Your task to perform on an android device: open app "DuckDuckGo Privacy Browser" (install if not already installed) Image 0: 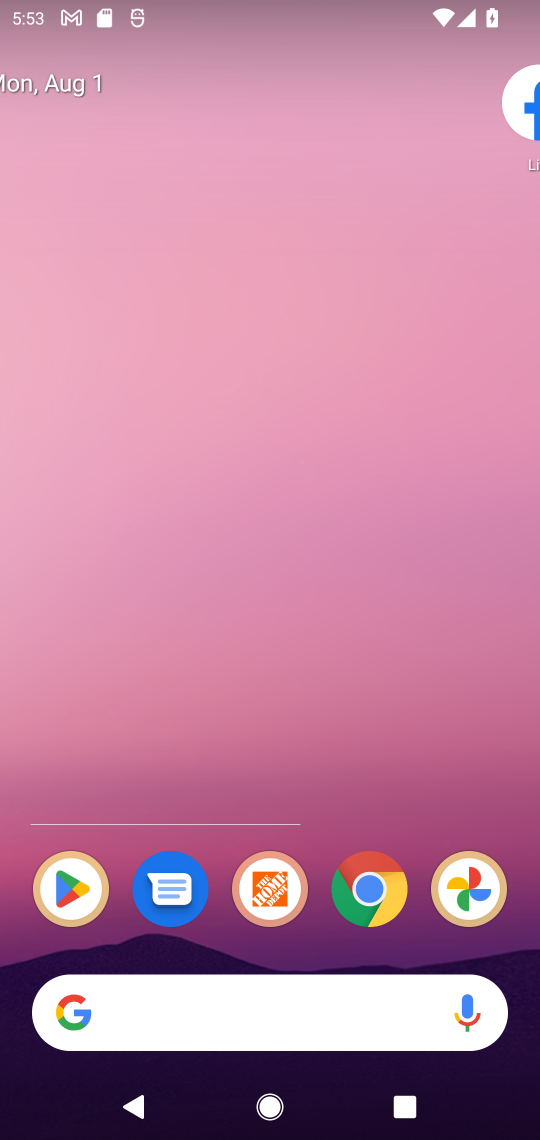
Step 0: press back button
Your task to perform on an android device: open app "DuckDuckGo Privacy Browser" (install if not already installed) Image 1: 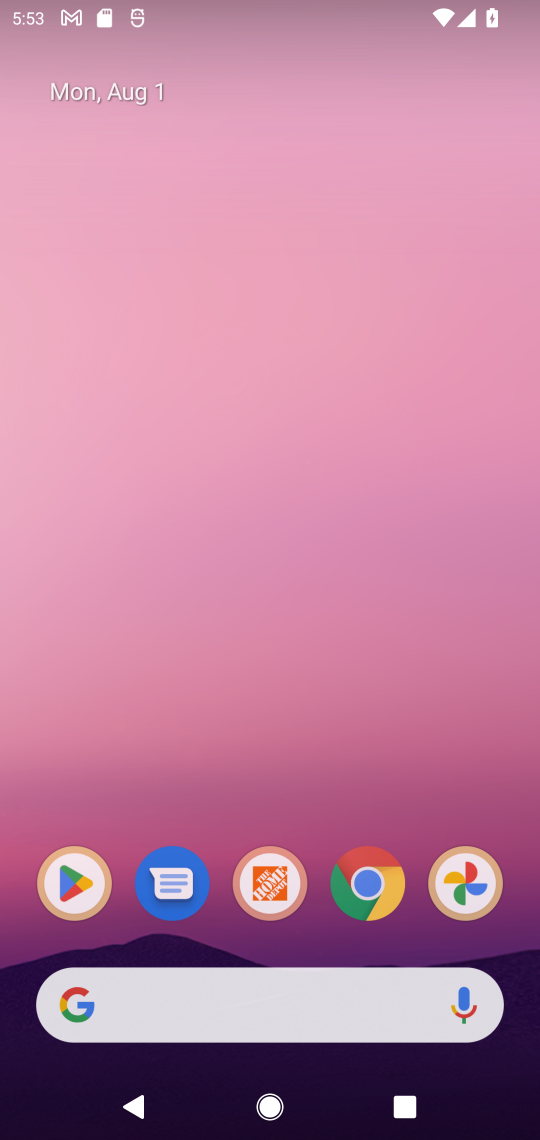
Step 1: drag from (329, 1041) to (174, 193)
Your task to perform on an android device: open app "DuckDuckGo Privacy Browser" (install if not already installed) Image 2: 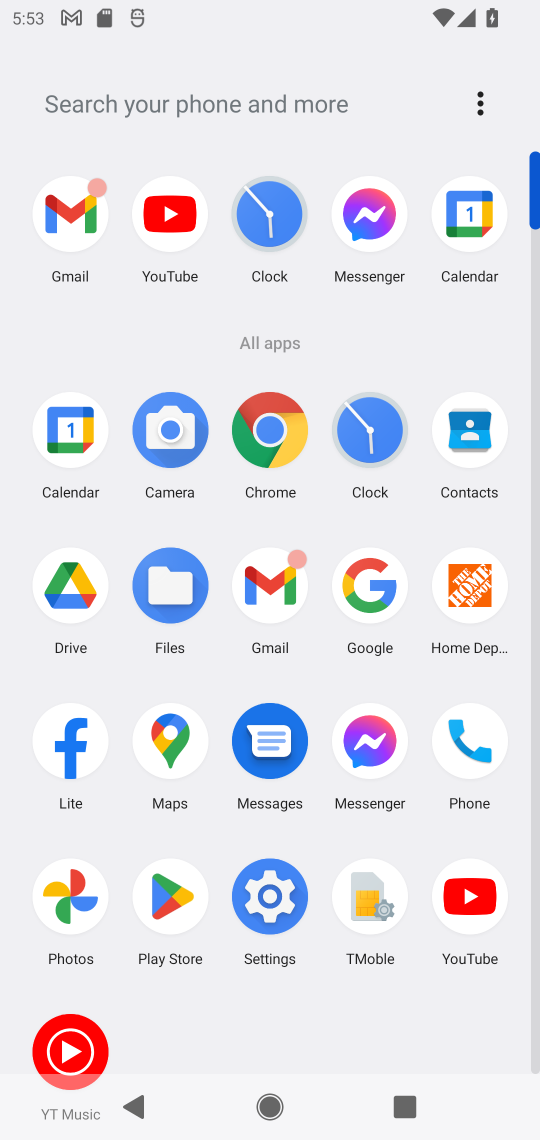
Step 2: press back button
Your task to perform on an android device: open app "DuckDuckGo Privacy Browser" (install if not already installed) Image 3: 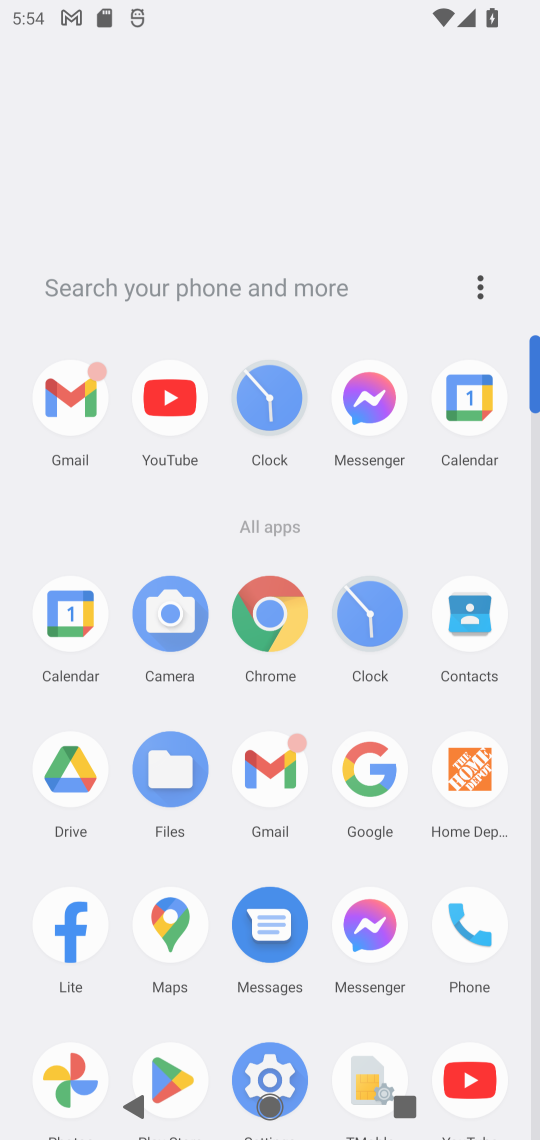
Step 3: press back button
Your task to perform on an android device: open app "DuckDuckGo Privacy Browser" (install if not already installed) Image 4: 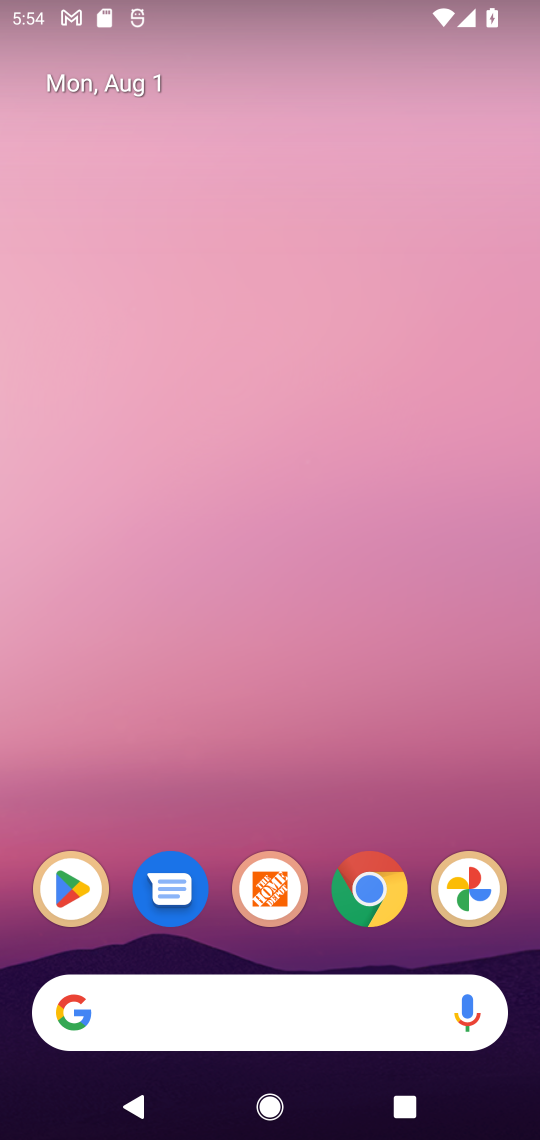
Step 4: drag from (310, 825) to (194, 67)
Your task to perform on an android device: open app "DuckDuckGo Privacy Browser" (install if not already installed) Image 5: 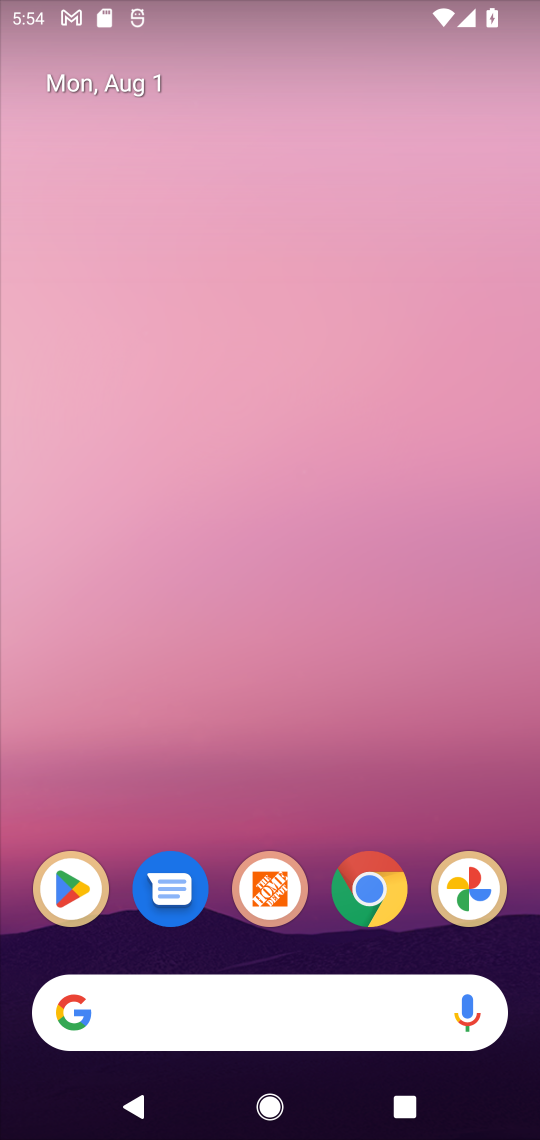
Step 5: drag from (299, 667) to (222, 1)
Your task to perform on an android device: open app "DuckDuckGo Privacy Browser" (install if not already installed) Image 6: 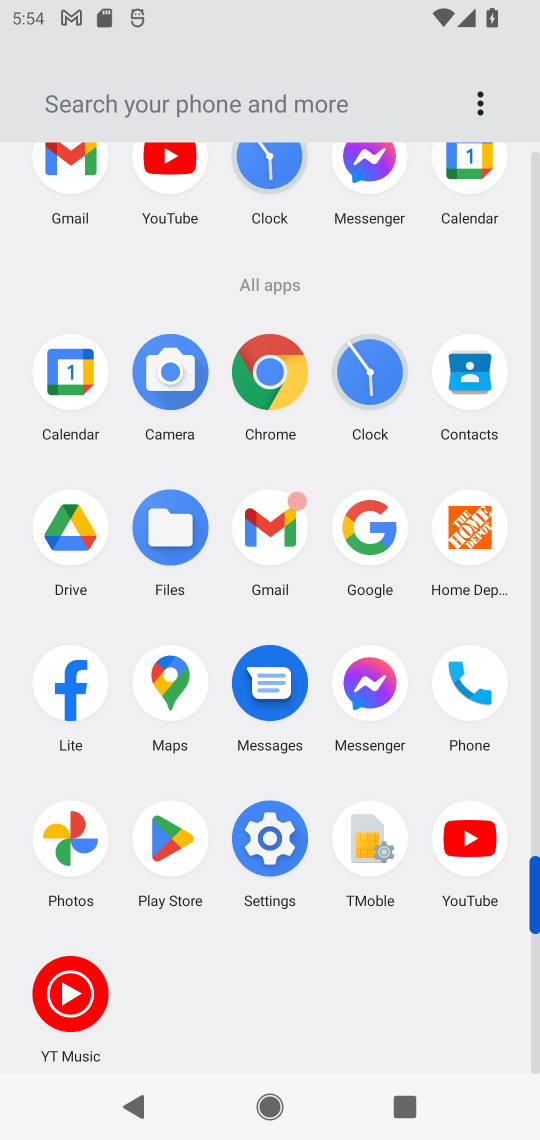
Step 6: click (164, 866)
Your task to perform on an android device: open app "DuckDuckGo Privacy Browser" (install if not already installed) Image 7: 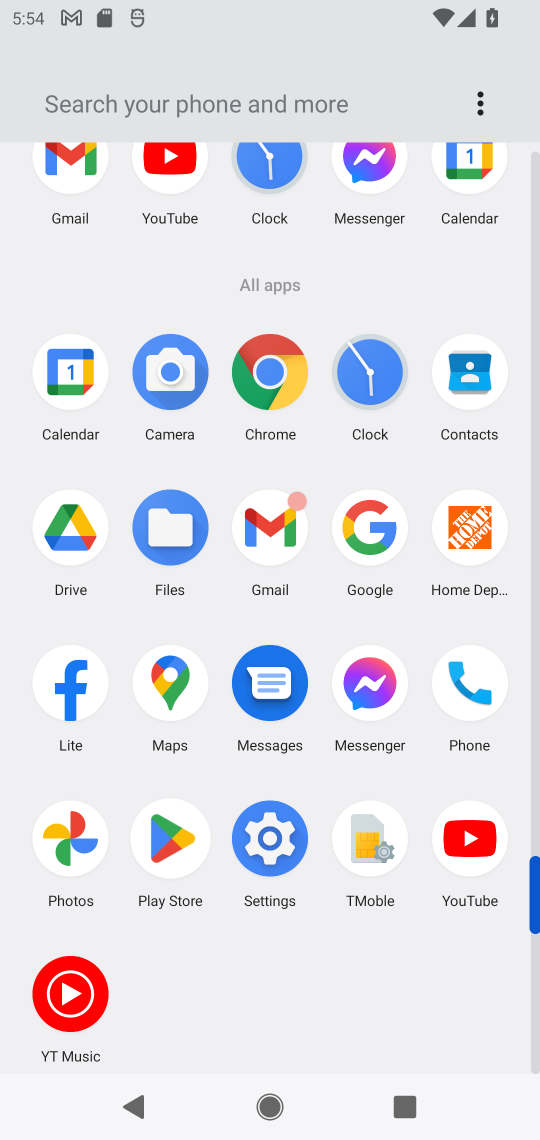
Step 7: click (168, 861)
Your task to perform on an android device: open app "DuckDuckGo Privacy Browser" (install if not already installed) Image 8: 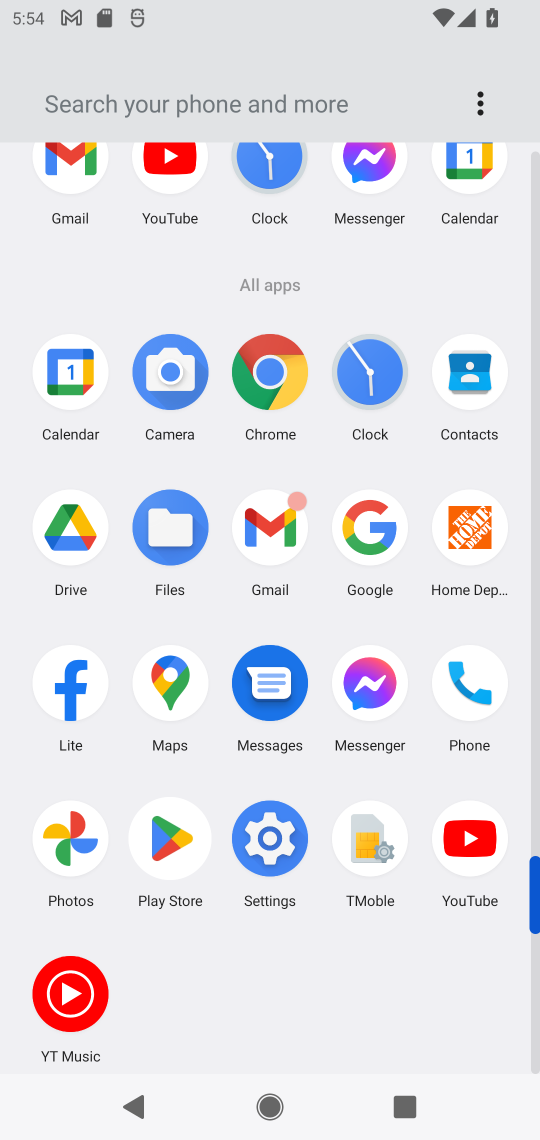
Step 8: click (168, 861)
Your task to perform on an android device: open app "DuckDuckGo Privacy Browser" (install if not already installed) Image 9: 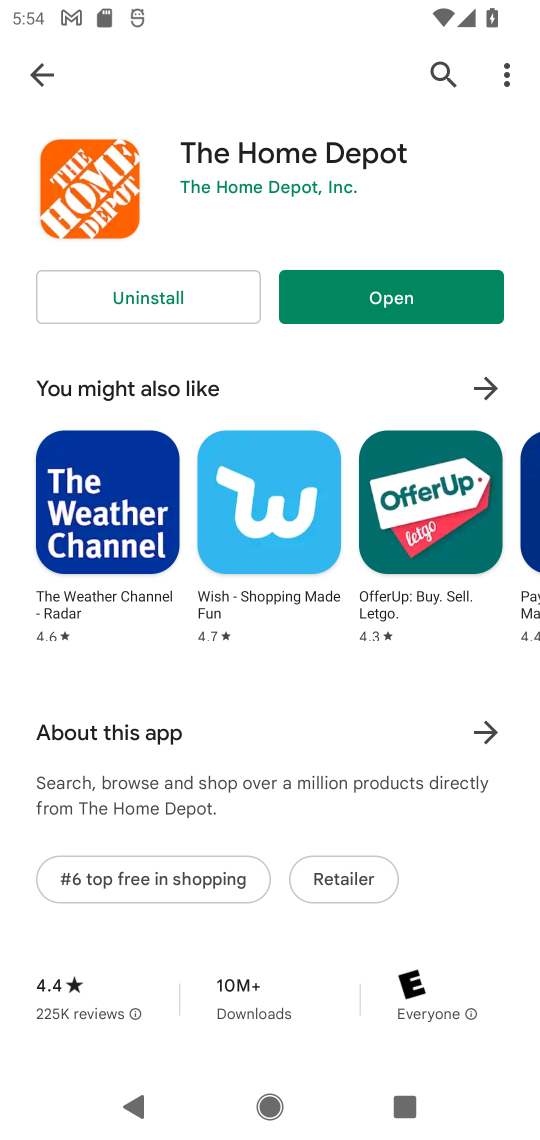
Step 9: click (182, 871)
Your task to perform on an android device: open app "DuckDuckGo Privacy Browser" (install if not already installed) Image 10: 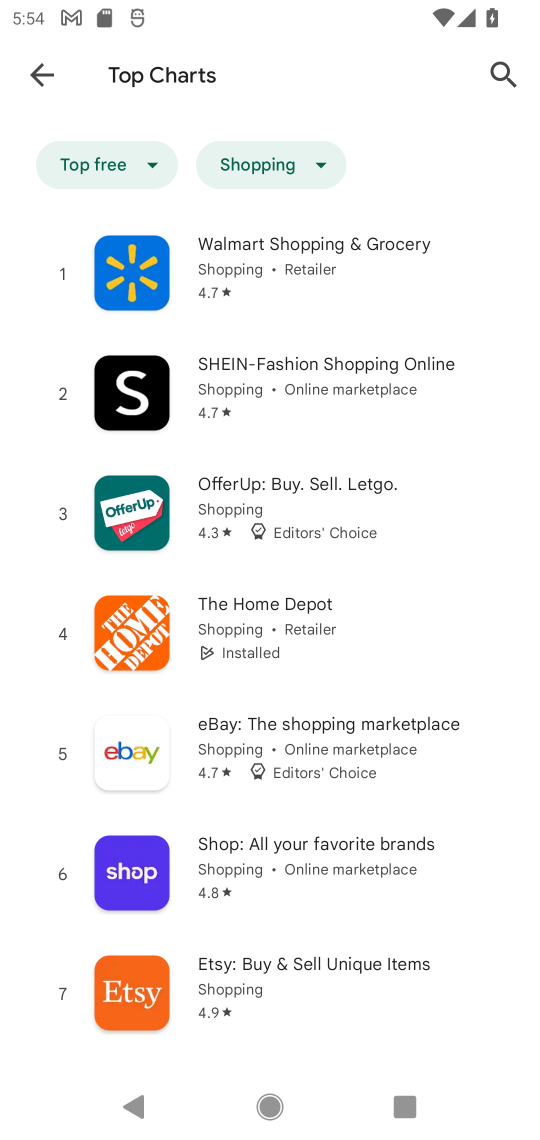
Step 10: click (39, 74)
Your task to perform on an android device: open app "DuckDuckGo Privacy Browser" (install if not already installed) Image 11: 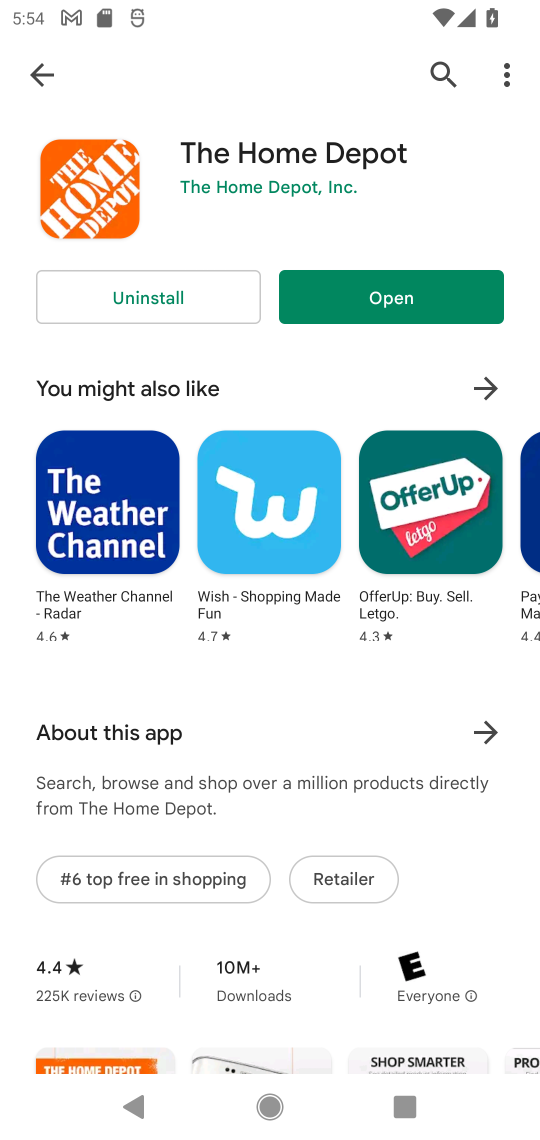
Step 11: click (31, 71)
Your task to perform on an android device: open app "DuckDuckGo Privacy Browser" (install if not already installed) Image 12: 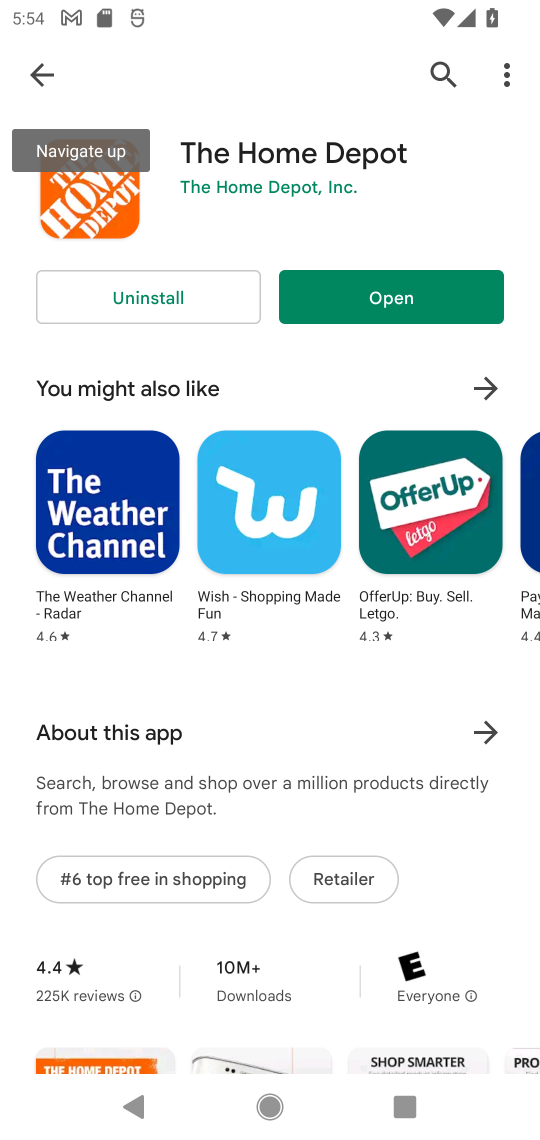
Step 12: click (43, 73)
Your task to perform on an android device: open app "DuckDuckGo Privacy Browser" (install if not already installed) Image 13: 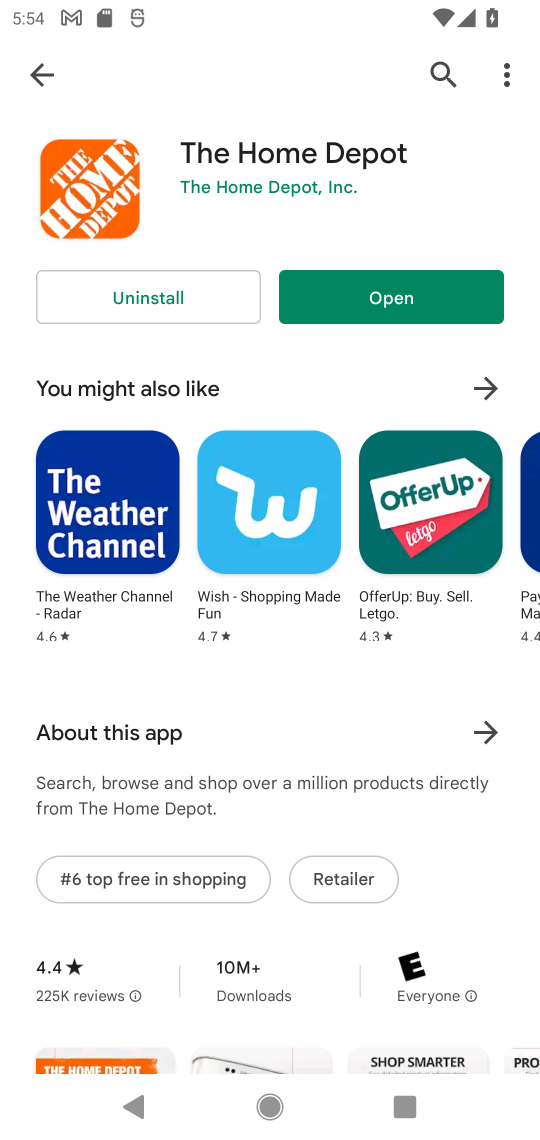
Step 13: click (43, 73)
Your task to perform on an android device: open app "DuckDuckGo Privacy Browser" (install if not already installed) Image 14: 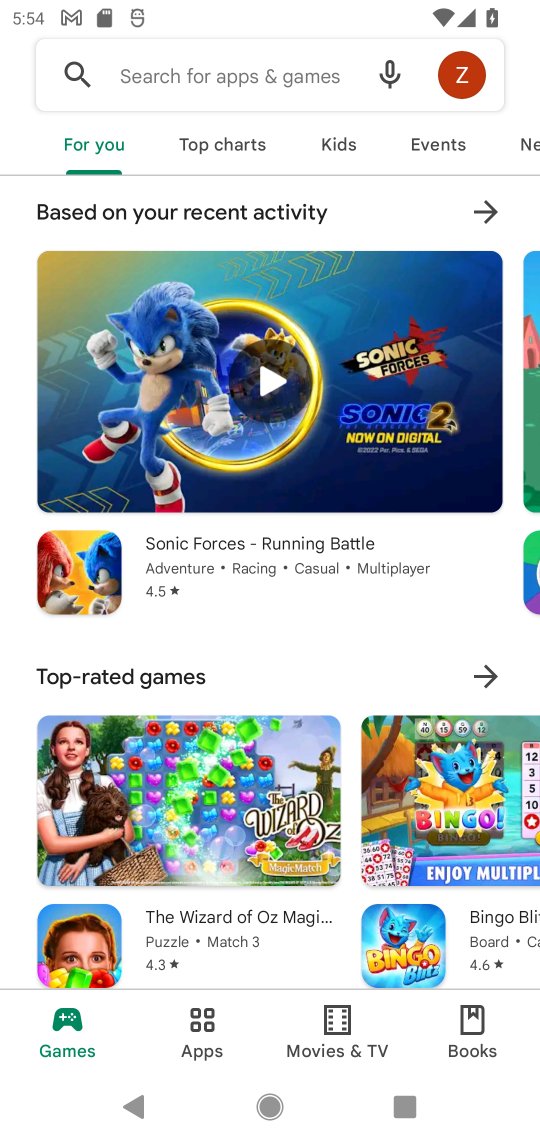
Step 14: click (154, 75)
Your task to perform on an android device: open app "DuckDuckGo Privacy Browser" (install if not already installed) Image 15: 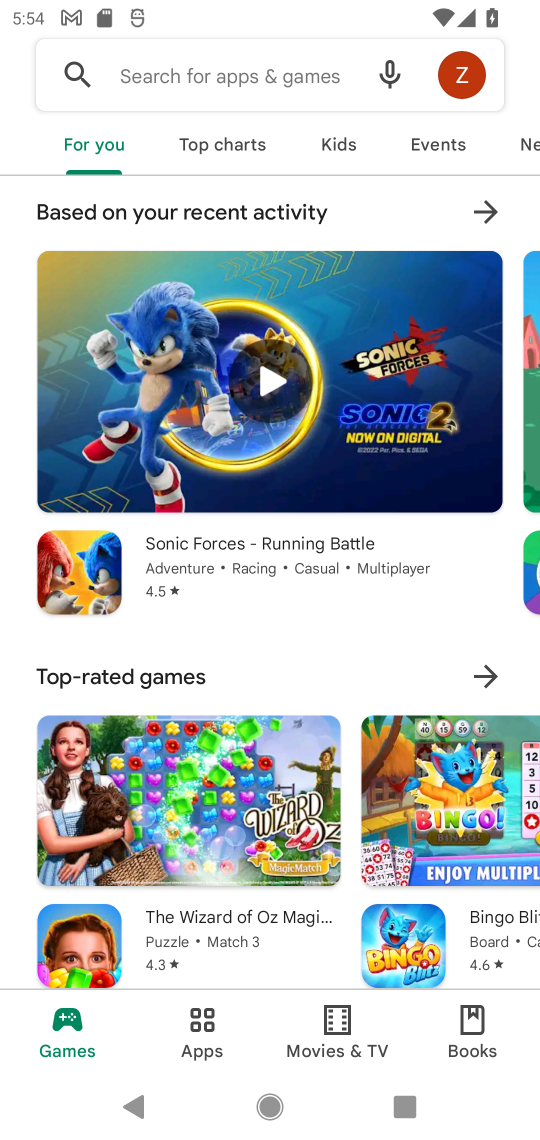
Step 15: click (155, 75)
Your task to perform on an android device: open app "DuckDuckGo Privacy Browser" (install if not already installed) Image 16: 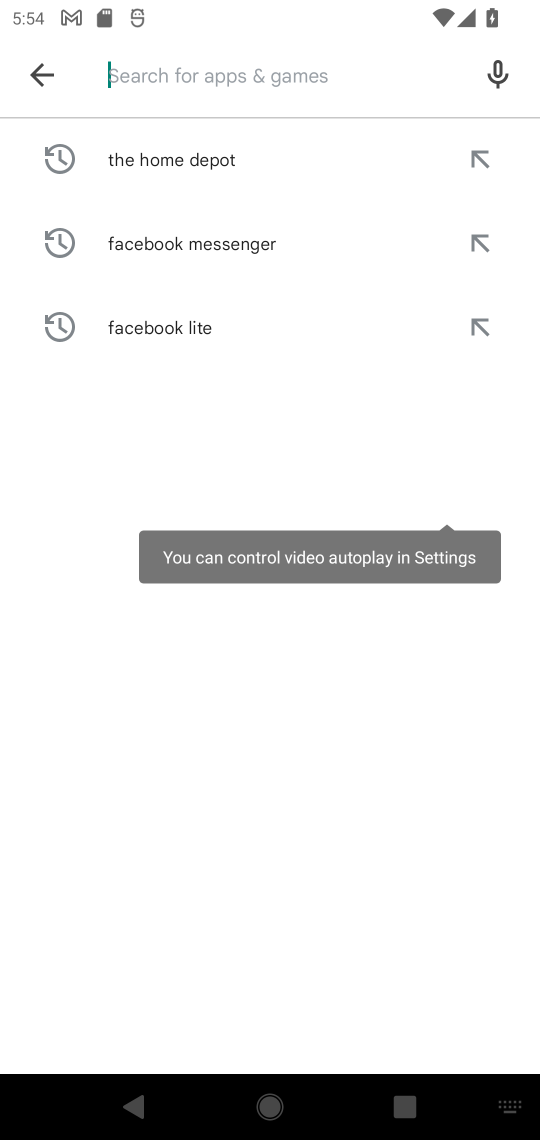
Step 16: type "DuckDuckGo Privacy Browser"
Your task to perform on an android device: open app "DuckDuckGo Privacy Browser" (install if not already installed) Image 17: 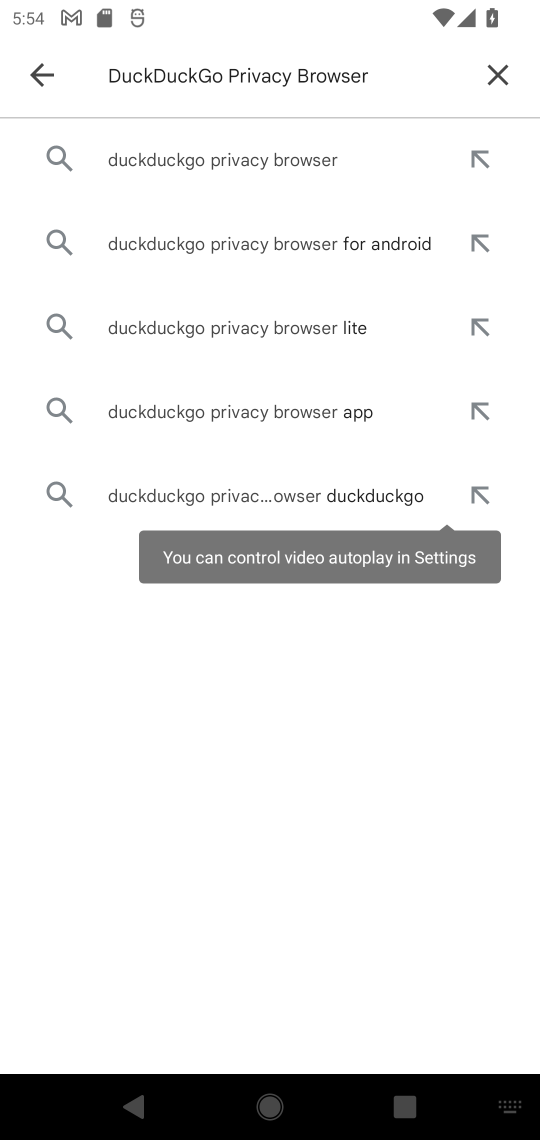
Step 17: click (271, 165)
Your task to perform on an android device: open app "DuckDuckGo Privacy Browser" (install if not already installed) Image 18: 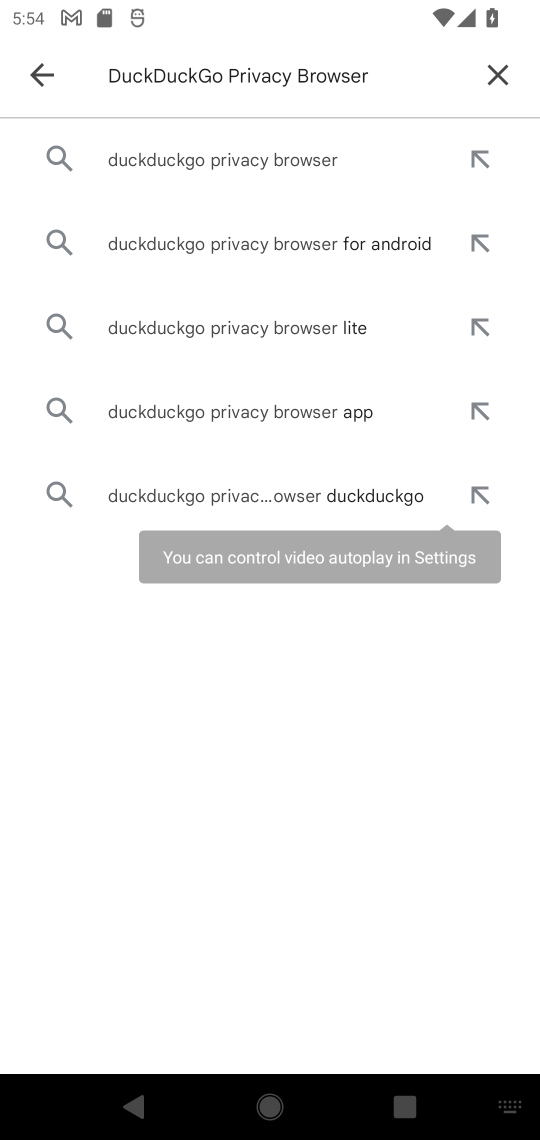
Step 18: click (267, 167)
Your task to perform on an android device: open app "DuckDuckGo Privacy Browser" (install if not already installed) Image 19: 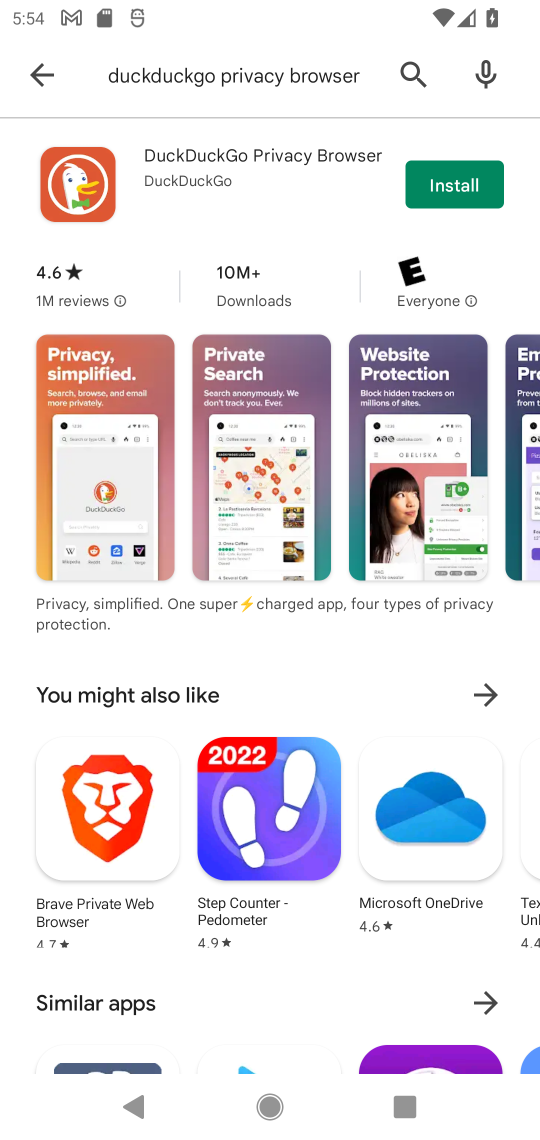
Step 19: click (473, 185)
Your task to perform on an android device: open app "DuckDuckGo Privacy Browser" (install if not already installed) Image 20: 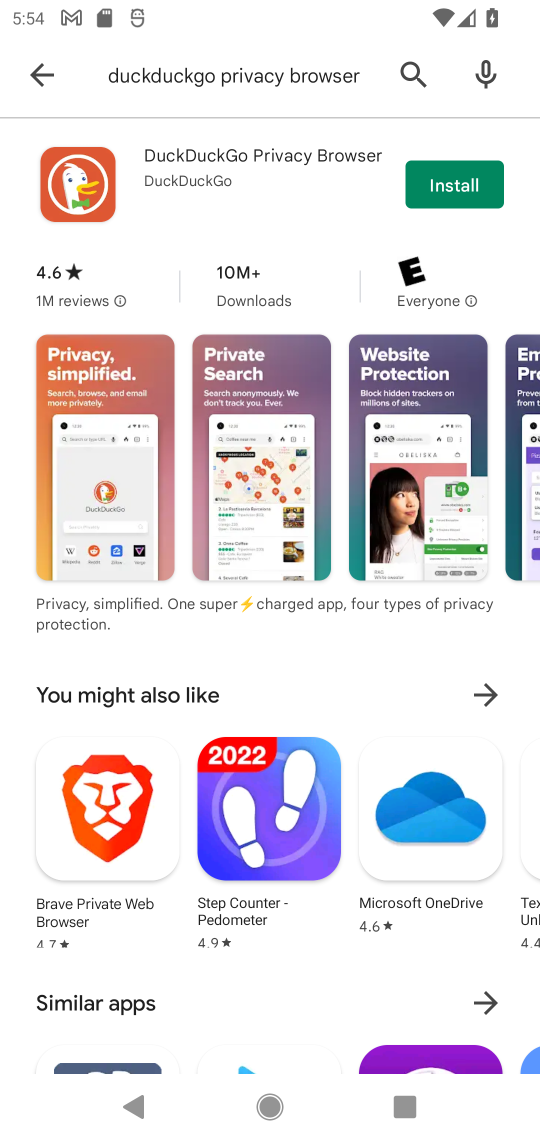
Step 20: click (475, 182)
Your task to perform on an android device: open app "DuckDuckGo Privacy Browser" (install if not already installed) Image 21: 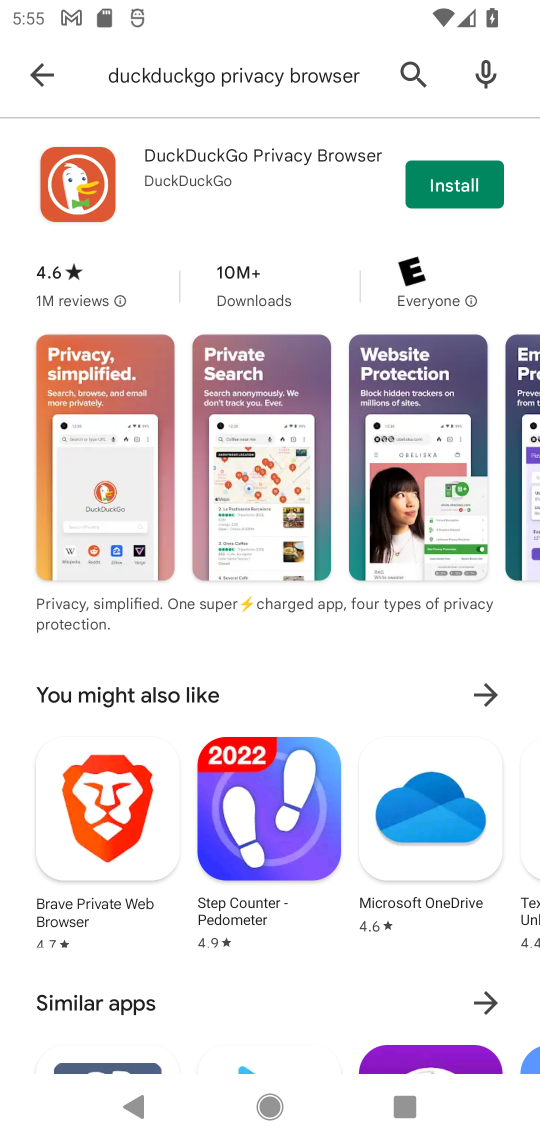
Step 21: click (453, 181)
Your task to perform on an android device: open app "DuckDuckGo Privacy Browser" (install if not already installed) Image 22: 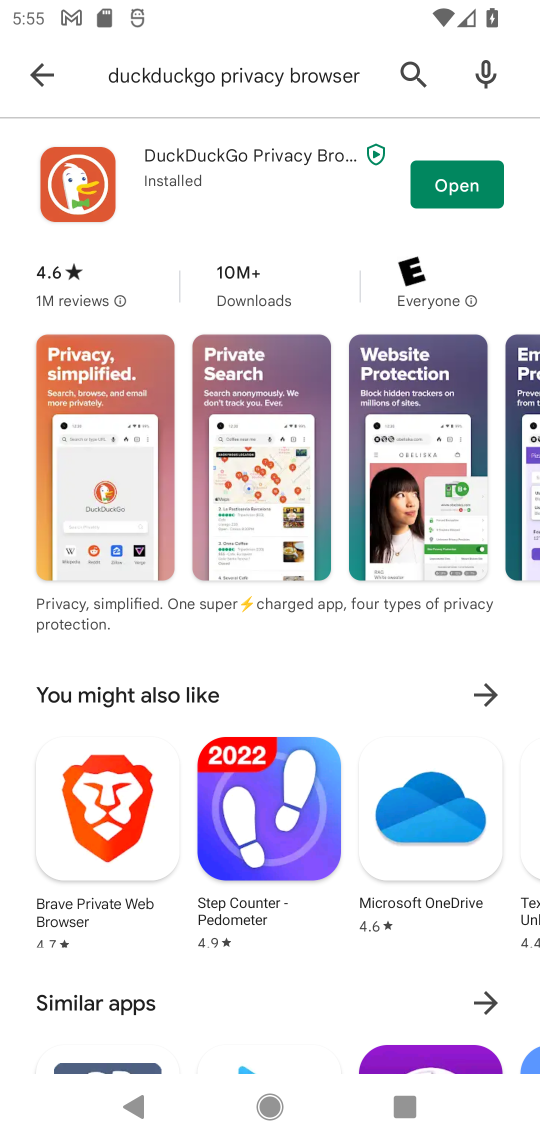
Step 22: click (477, 195)
Your task to perform on an android device: open app "DuckDuckGo Privacy Browser" (install if not already installed) Image 23: 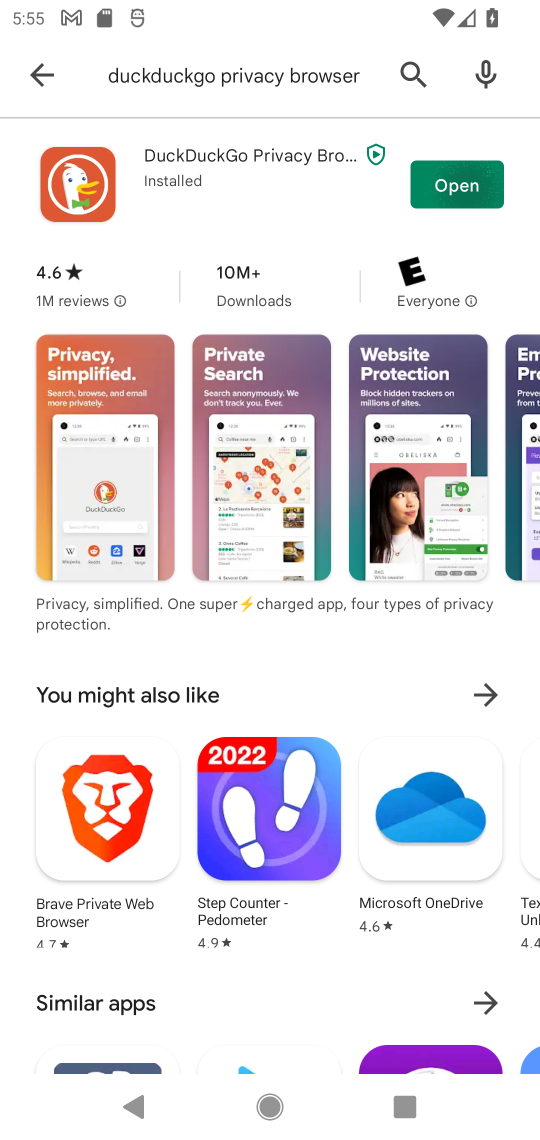
Step 23: click (477, 195)
Your task to perform on an android device: open app "DuckDuckGo Privacy Browser" (install if not already installed) Image 24: 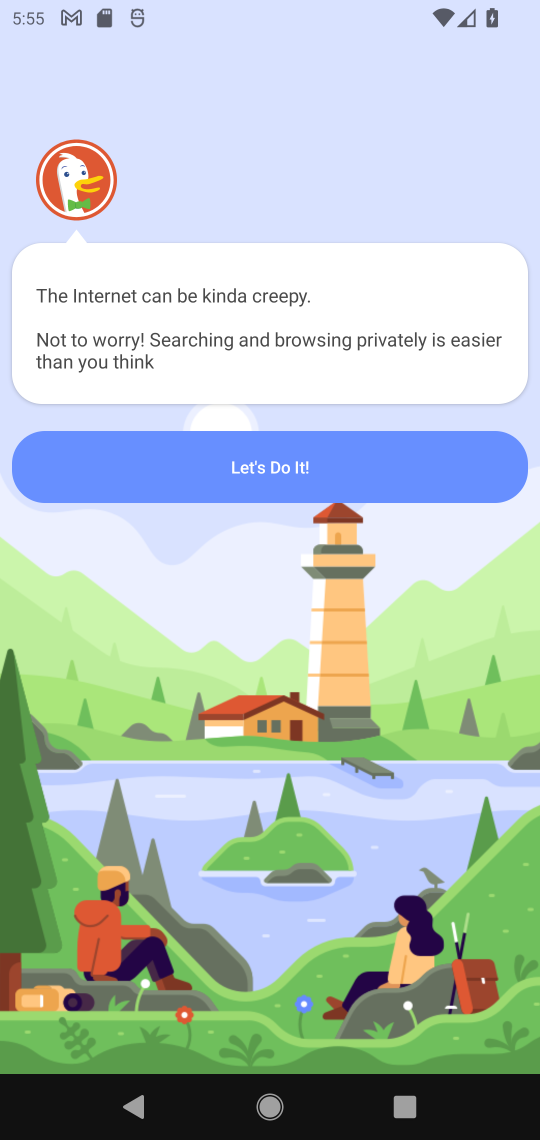
Step 24: click (292, 466)
Your task to perform on an android device: open app "DuckDuckGo Privacy Browser" (install if not already installed) Image 25: 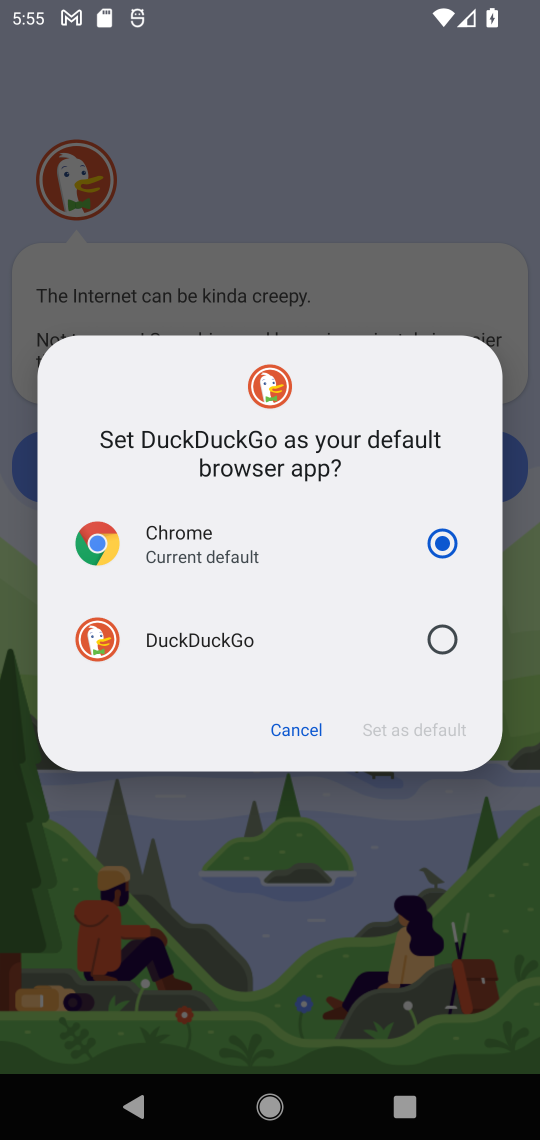
Step 25: click (443, 530)
Your task to perform on an android device: open app "DuckDuckGo Privacy Browser" (install if not already installed) Image 26: 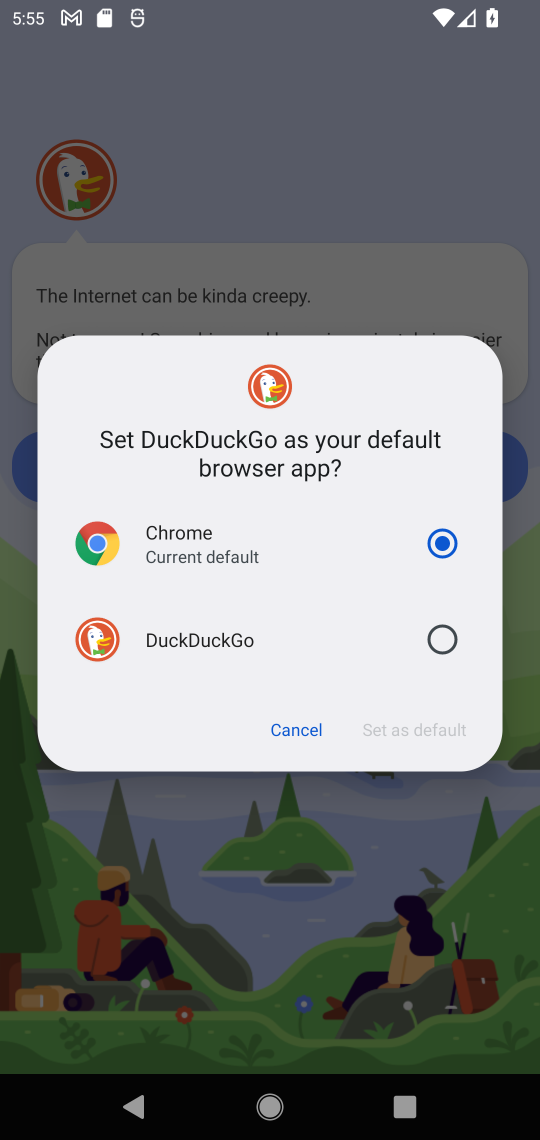
Step 26: click (443, 521)
Your task to perform on an android device: open app "DuckDuckGo Privacy Browser" (install if not already installed) Image 27: 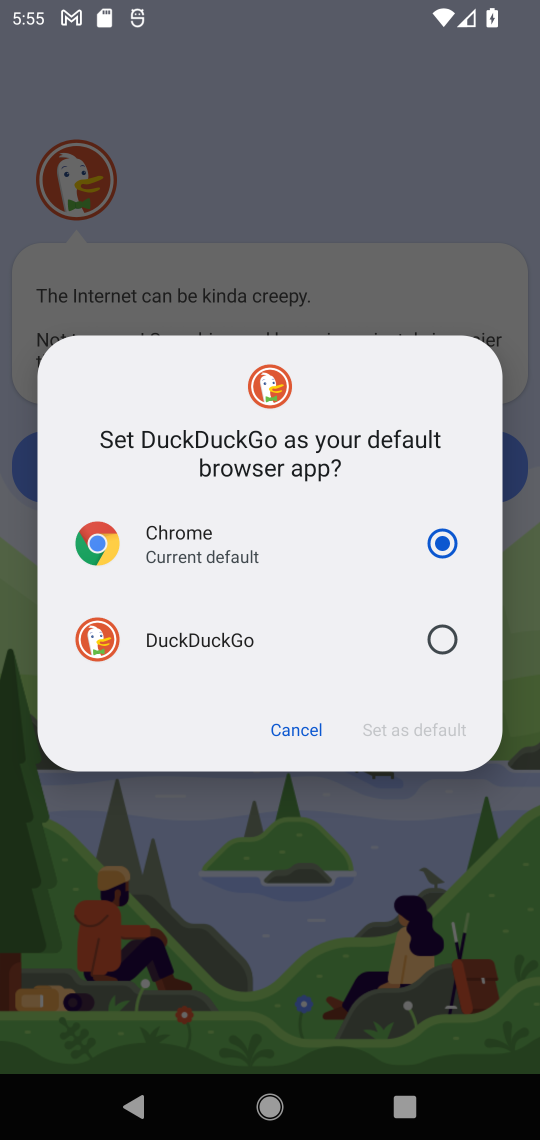
Step 27: click (443, 531)
Your task to perform on an android device: open app "DuckDuckGo Privacy Browser" (install if not already installed) Image 28: 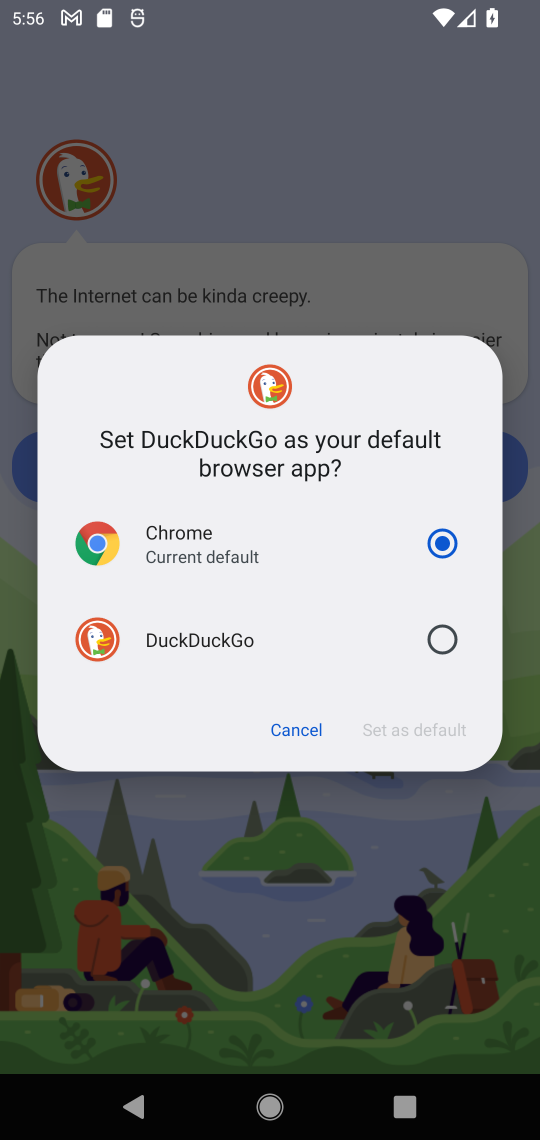
Step 28: click (443, 546)
Your task to perform on an android device: open app "DuckDuckGo Privacy Browser" (install if not already installed) Image 29: 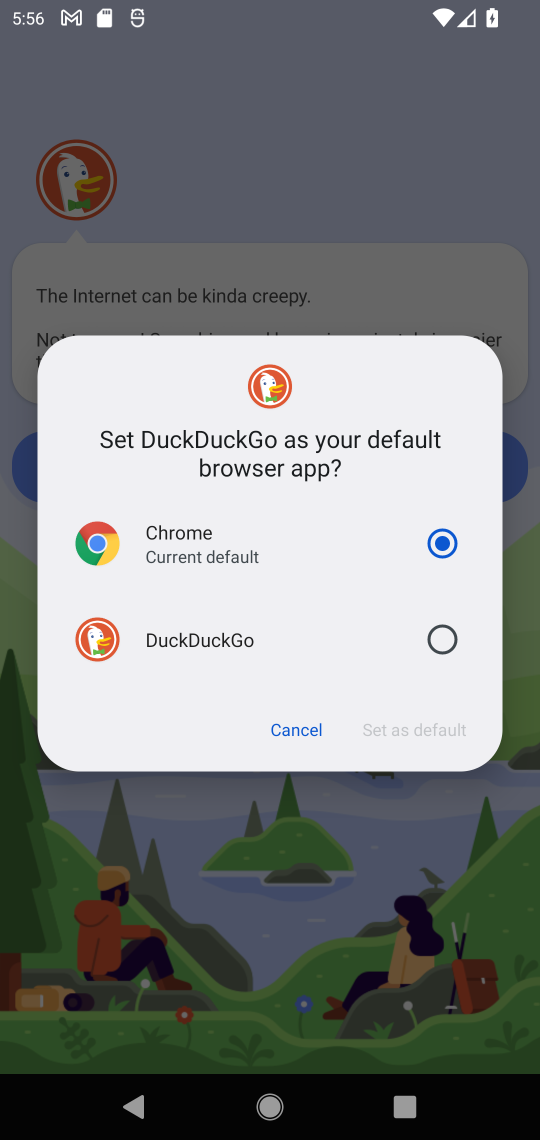
Step 29: click (450, 550)
Your task to perform on an android device: open app "DuckDuckGo Privacy Browser" (install if not already installed) Image 30: 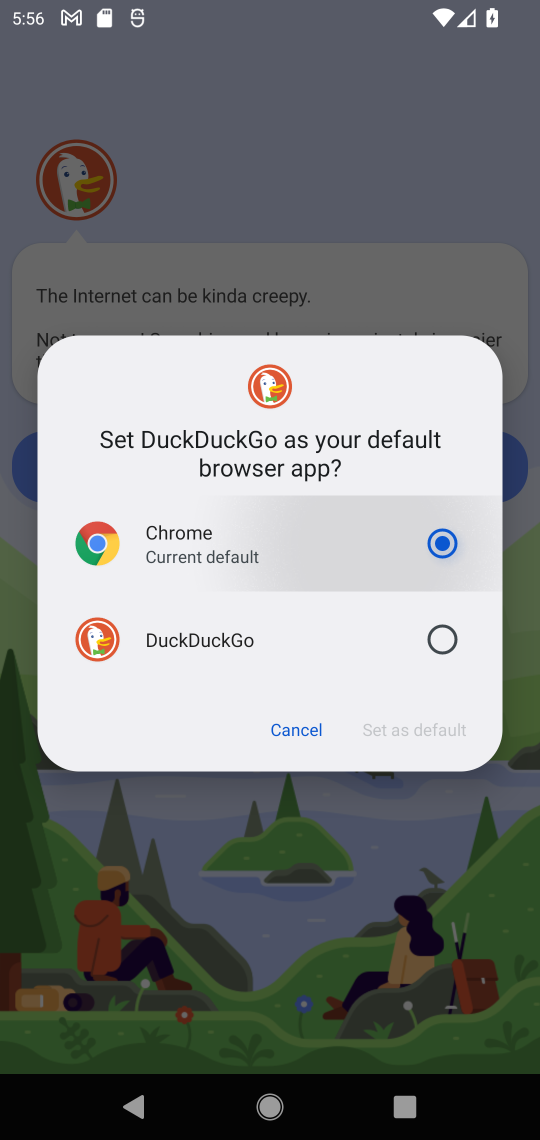
Step 30: click (449, 550)
Your task to perform on an android device: open app "DuckDuckGo Privacy Browser" (install if not already installed) Image 31: 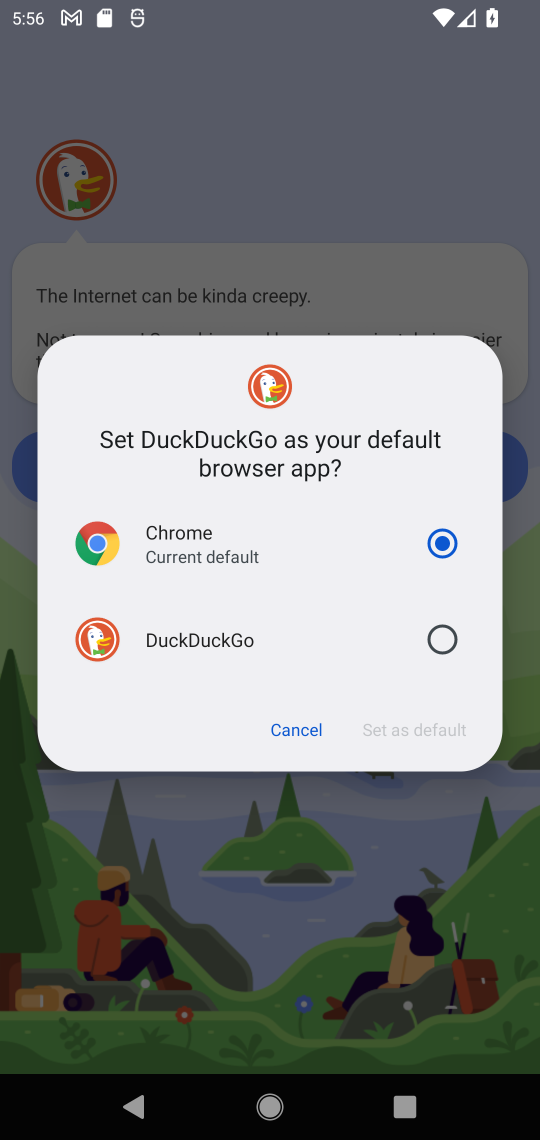
Step 31: click (454, 627)
Your task to perform on an android device: open app "DuckDuckGo Privacy Browser" (install if not already installed) Image 32: 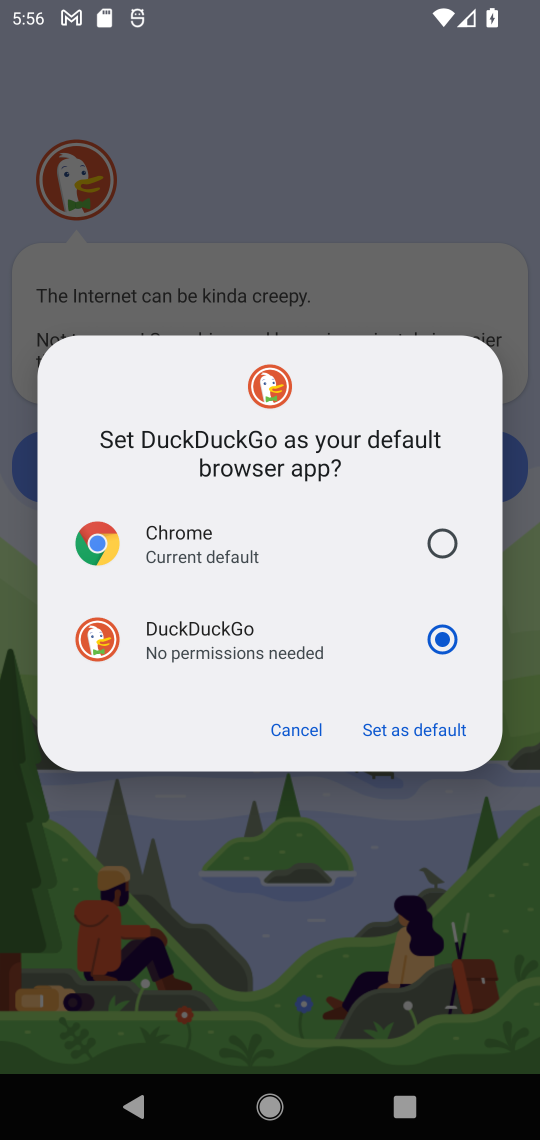
Step 32: click (417, 736)
Your task to perform on an android device: open app "DuckDuckGo Privacy Browser" (install if not already installed) Image 33: 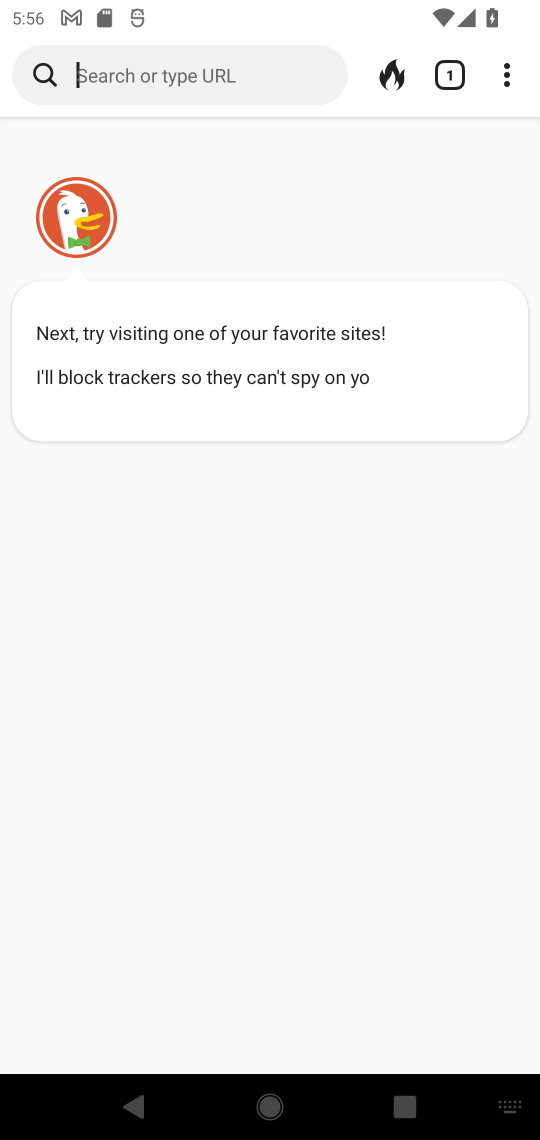
Step 33: task complete